Your task to perform on an android device: empty trash in the gmail app Image 0: 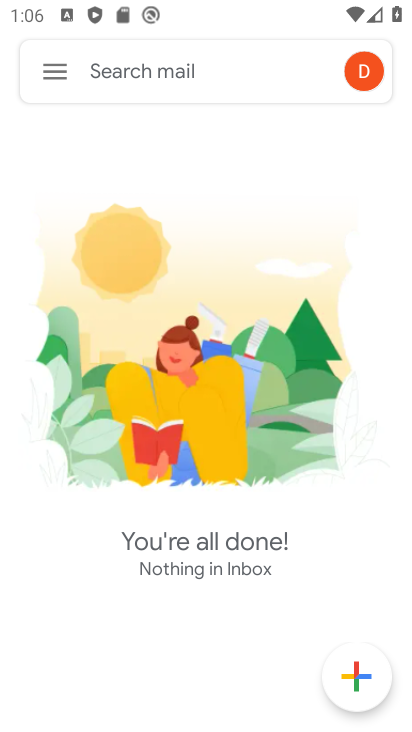
Step 0: drag from (246, 520) to (343, 88)
Your task to perform on an android device: empty trash in the gmail app Image 1: 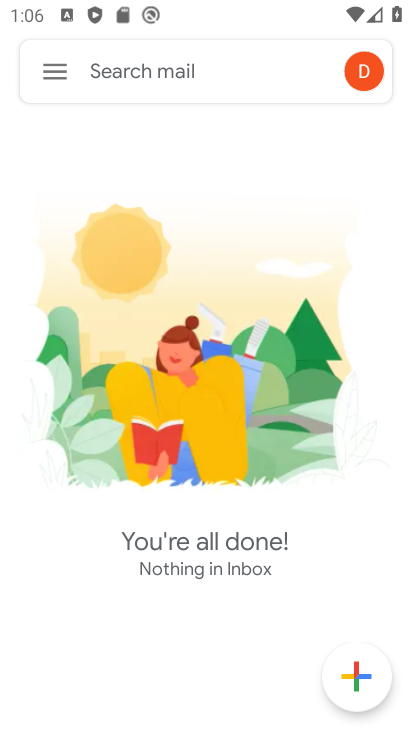
Step 1: click (53, 59)
Your task to perform on an android device: empty trash in the gmail app Image 2: 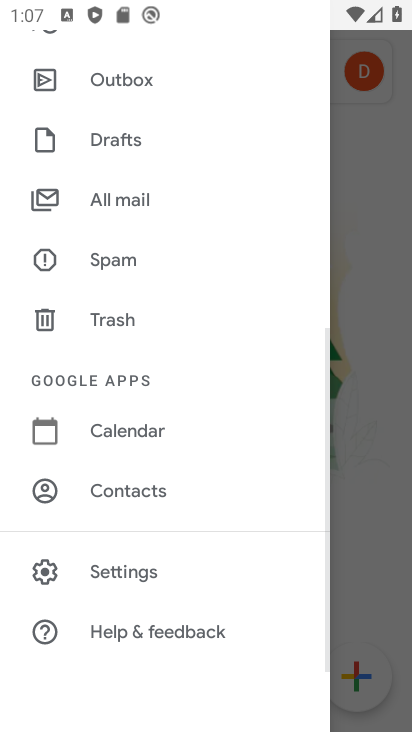
Step 2: click (131, 325)
Your task to perform on an android device: empty trash in the gmail app Image 3: 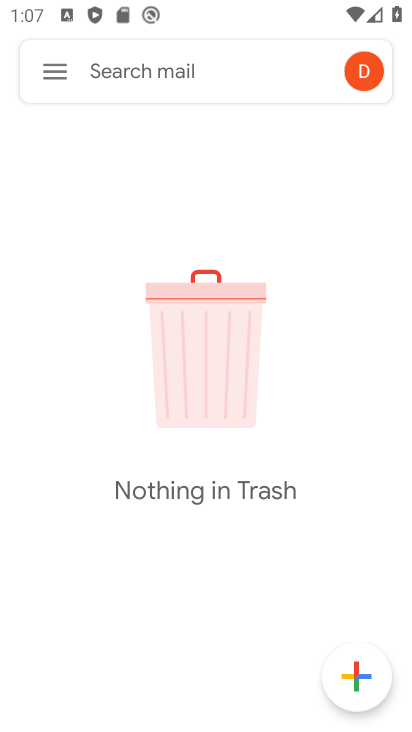
Step 3: drag from (198, 553) to (314, 51)
Your task to perform on an android device: empty trash in the gmail app Image 4: 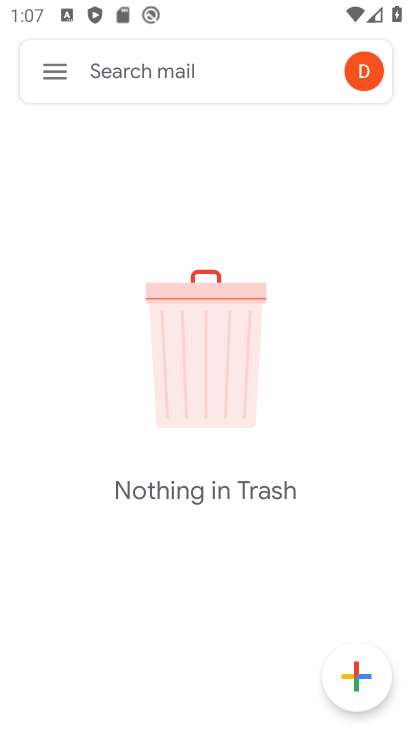
Step 4: click (61, 76)
Your task to perform on an android device: empty trash in the gmail app Image 5: 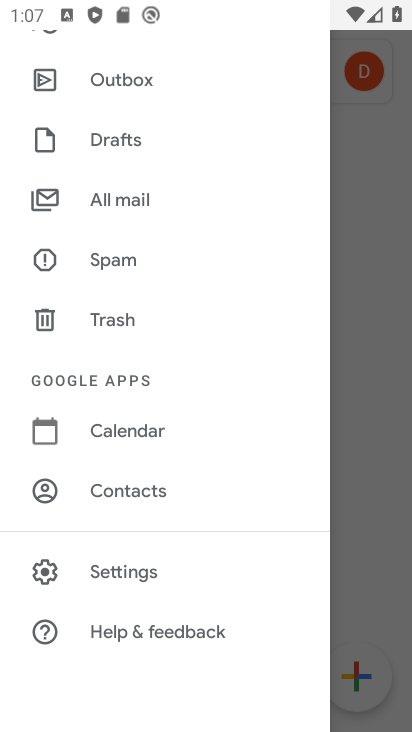
Step 5: drag from (234, 562) to (315, 62)
Your task to perform on an android device: empty trash in the gmail app Image 6: 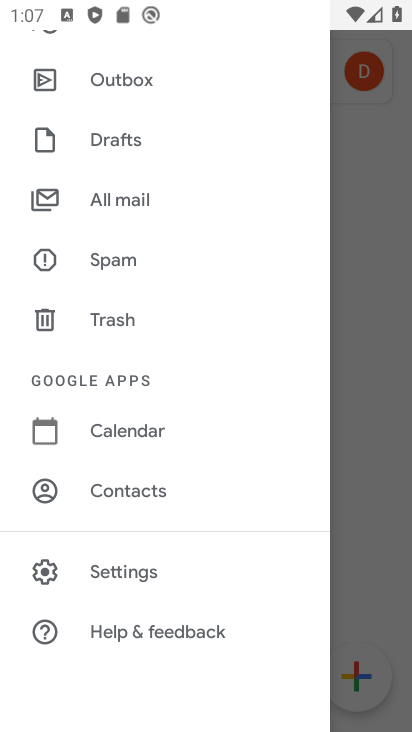
Step 6: click (173, 329)
Your task to perform on an android device: empty trash in the gmail app Image 7: 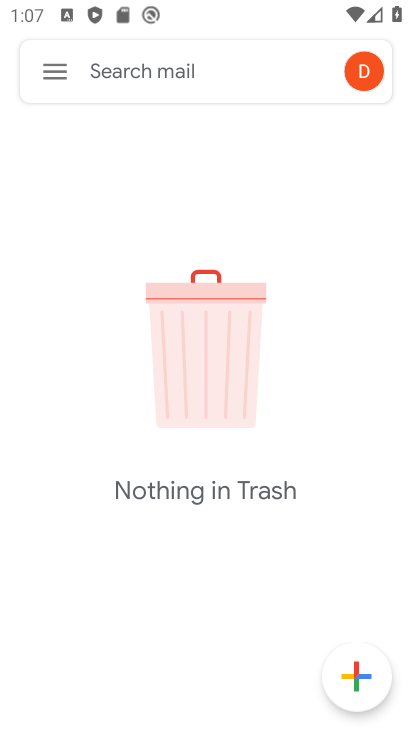
Step 7: task complete